Your task to perform on an android device: Go to Amazon Image 0: 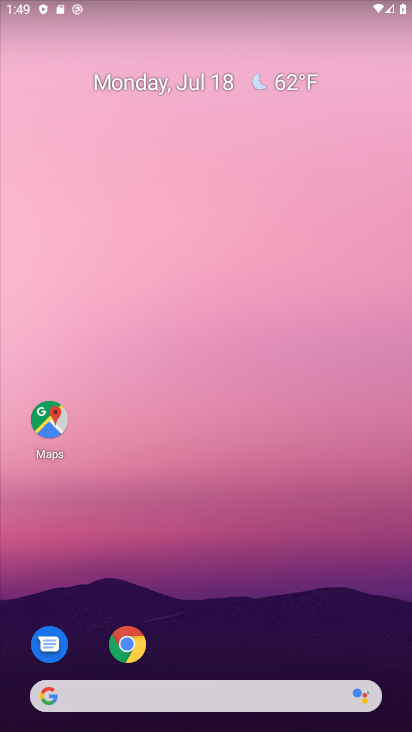
Step 0: drag from (288, 677) to (384, 127)
Your task to perform on an android device: Go to Amazon Image 1: 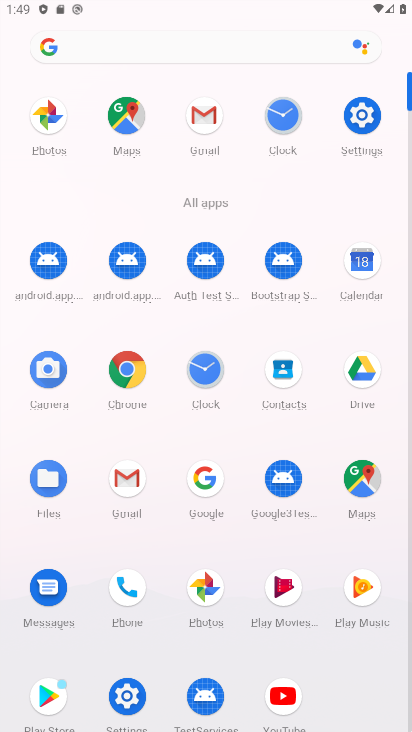
Step 1: click (144, 381)
Your task to perform on an android device: Go to Amazon Image 2: 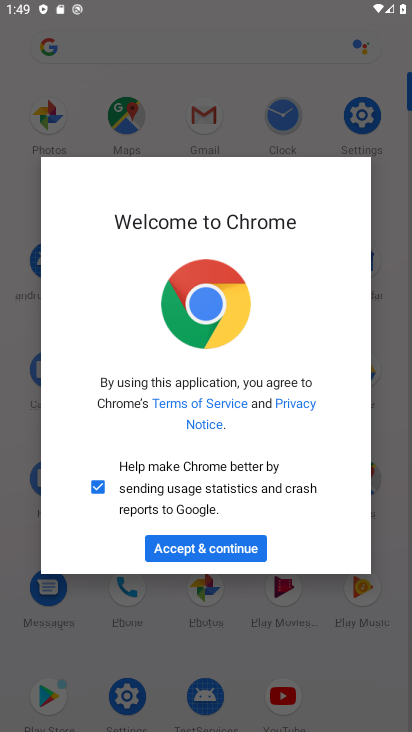
Step 2: click (252, 558)
Your task to perform on an android device: Go to Amazon Image 3: 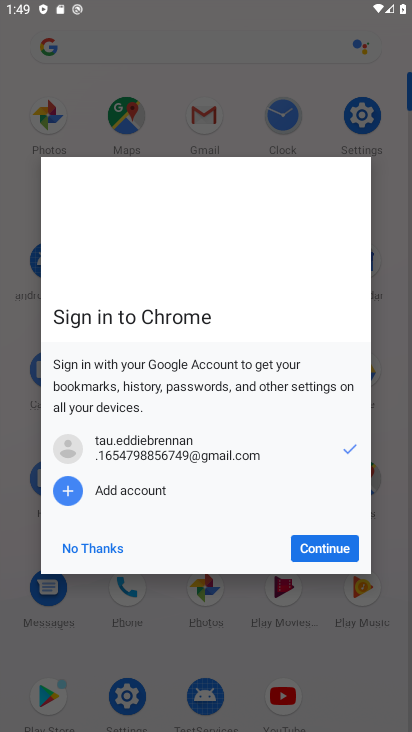
Step 3: click (338, 548)
Your task to perform on an android device: Go to Amazon Image 4: 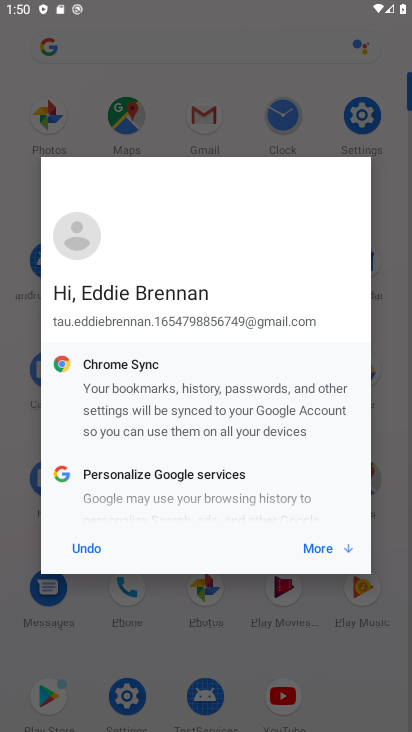
Step 4: click (341, 558)
Your task to perform on an android device: Go to Amazon Image 5: 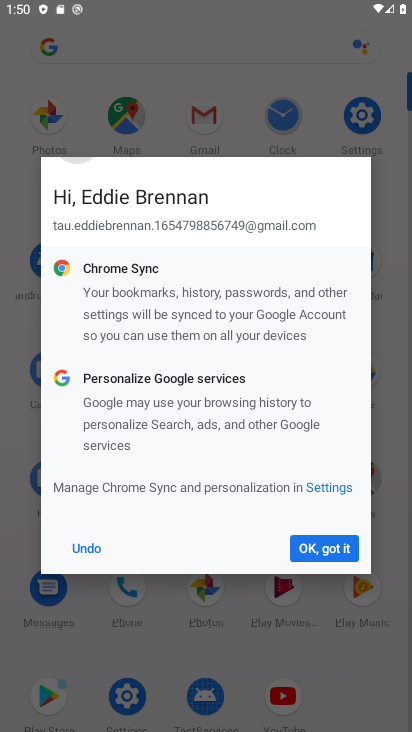
Step 5: click (353, 547)
Your task to perform on an android device: Go to Amazon Image 6: 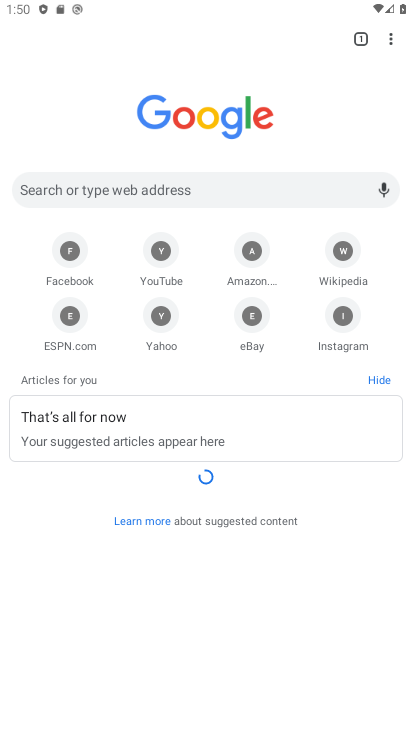
Step 6: click (253, 253)
Your task to perform on an android device: Go to Amazon Image 7: 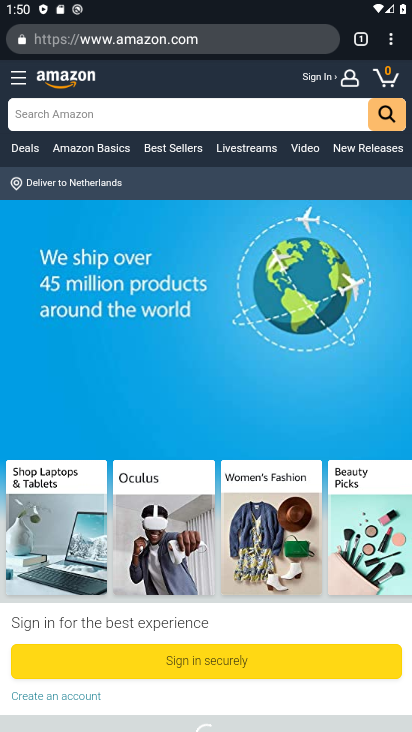
Step 7: task complete